Your task to perform on an android device: See recent photos Image 0: 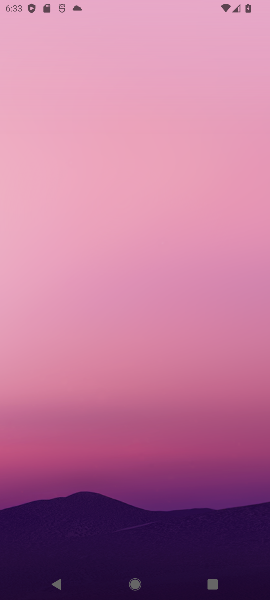
Step 0: press home button
Your task to perform on an android device: See recent photos Image 1: 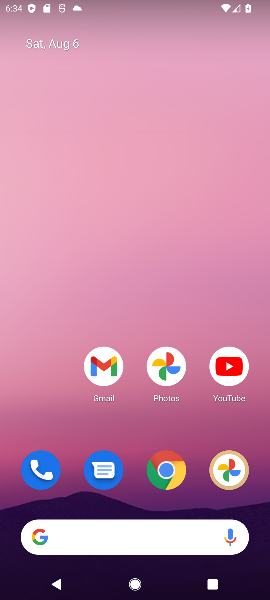
Step 1: click (226, 466)
Your task to perform on an android device: See recent photos Image 2: 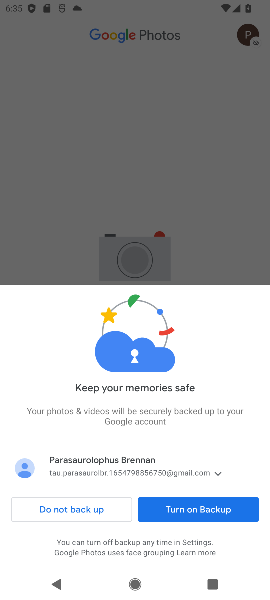
Step 2: task complete